Your task to perform on an android device: Go to Yahoo.com Image 0: 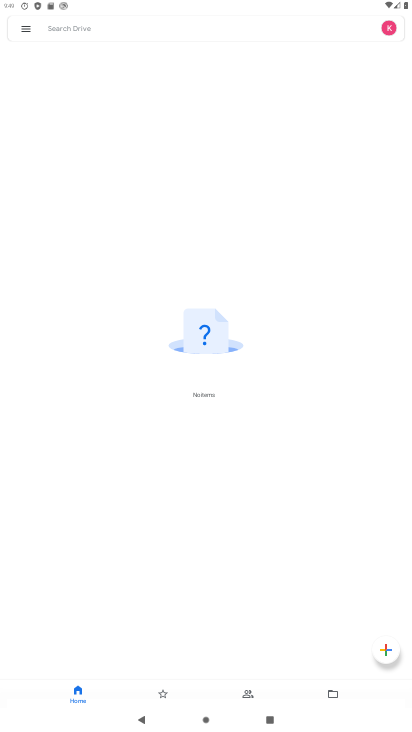
Step 0: press home button
Your task to perform on an android device: Go to Yahoo.com Image 1: 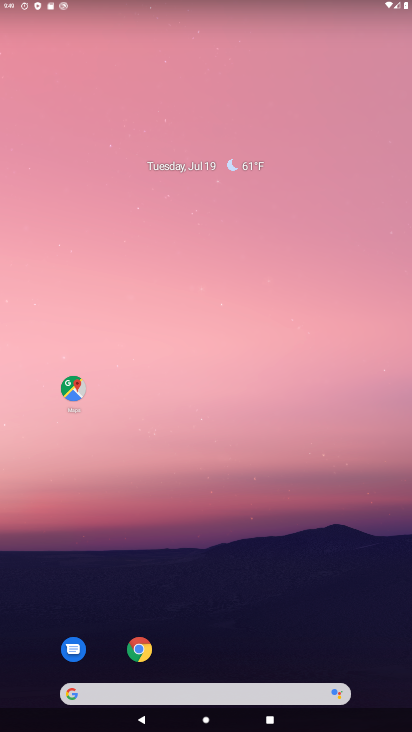
Step 1: click (135, 653)
Your task to perform on an android device: Go to Yahoo.com Image 2: 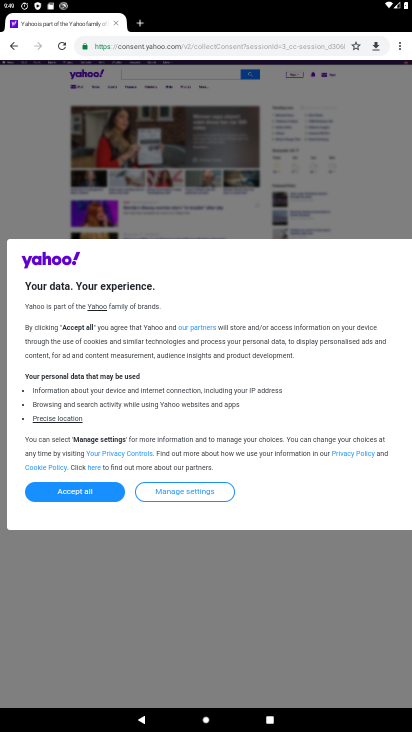
Step 2: click (404, 40)
Your task to perform on an android device: Go to Yahoo.com Image 3: 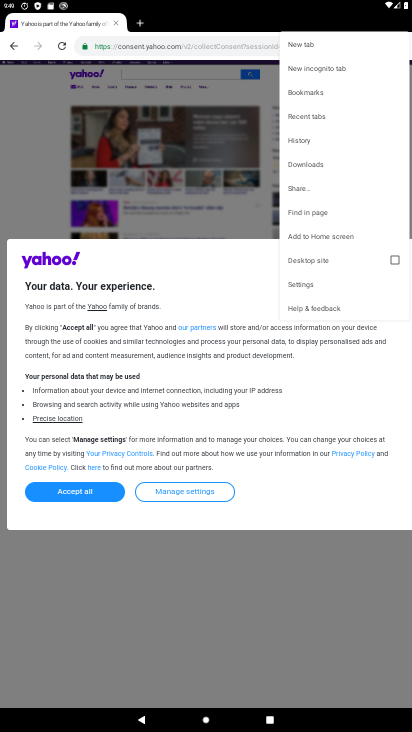
Step 3: task complete